Your task to perform on an android device: check battery use Image 0: 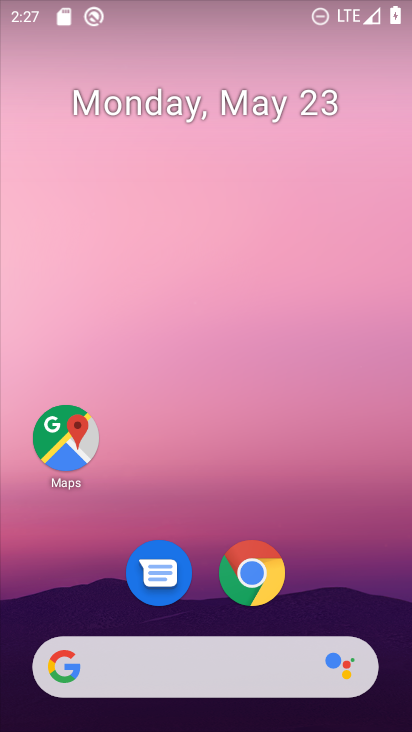
Step 0: drag from (335, 542) to (243, 101)
Your task to perform on an android device: check battery use Image 1: 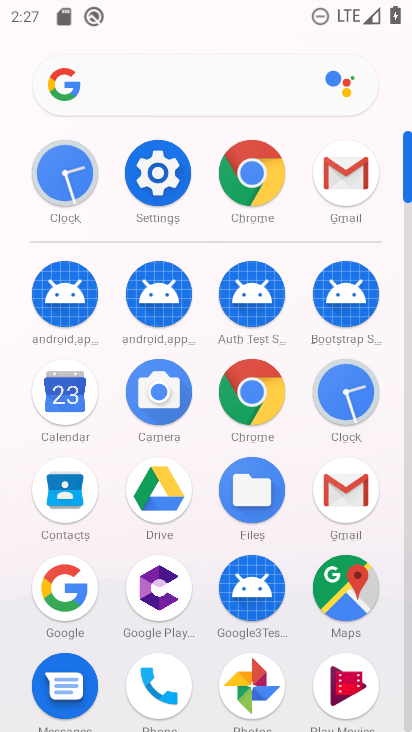
Step 1: click (145, 161)
Your task to perform on an android device: check battery use Image 2: 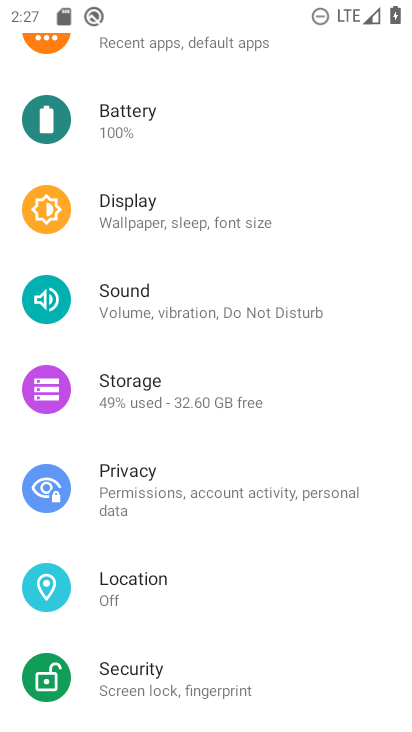
Step 2: drag from (229, 476) to (185, 439)
Your task to perform on an android device: check battery use Image 3: 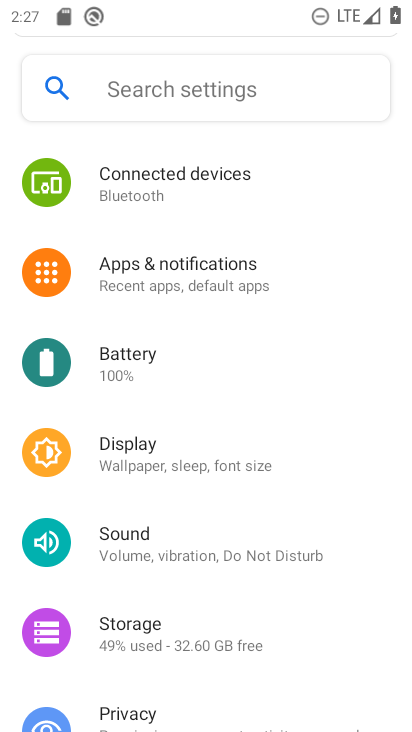
Step 3: click (146, 363)
Your task to perform on an android device: check battery use Image 4: 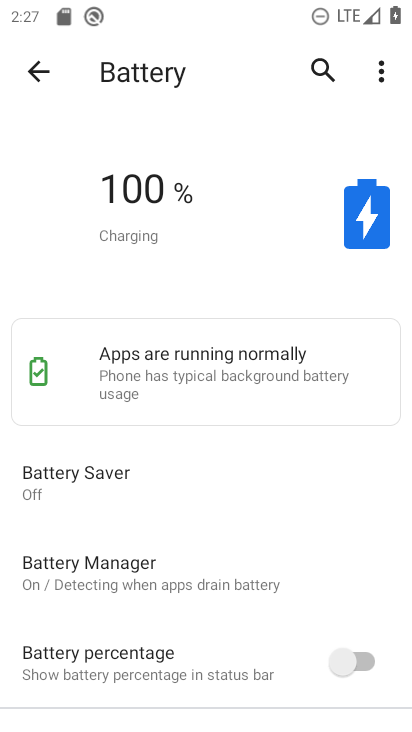
Step 4: click (382, 67)
Your task to perform on an android device: check battery use Image 5: 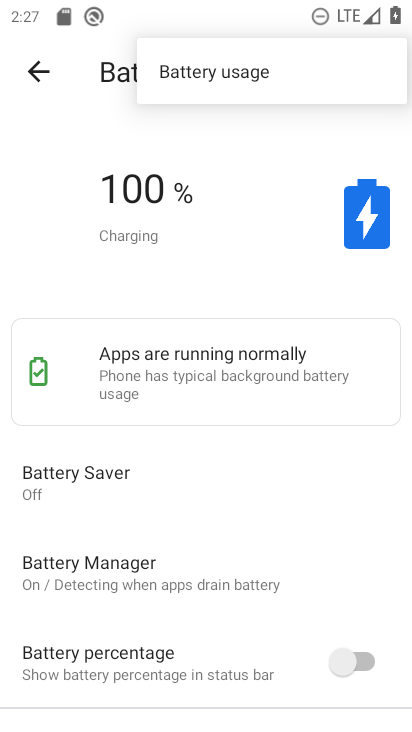
Step 5: click (235, 77)
Your task to perform on an android device: check battery use Image 6: 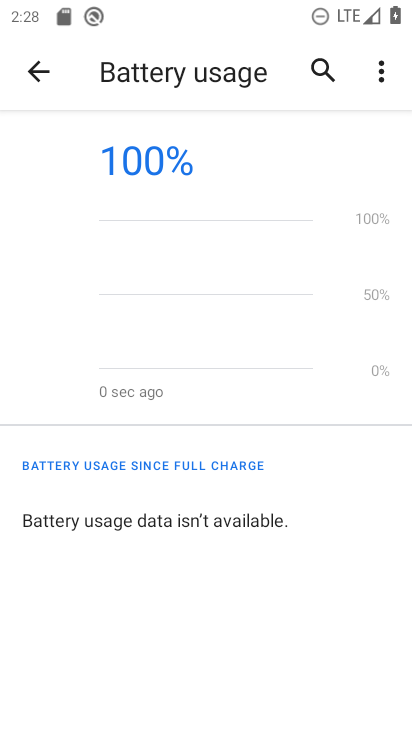
Step 6: task complete